Your task to perform on an android device: change notifications settings Image 0: 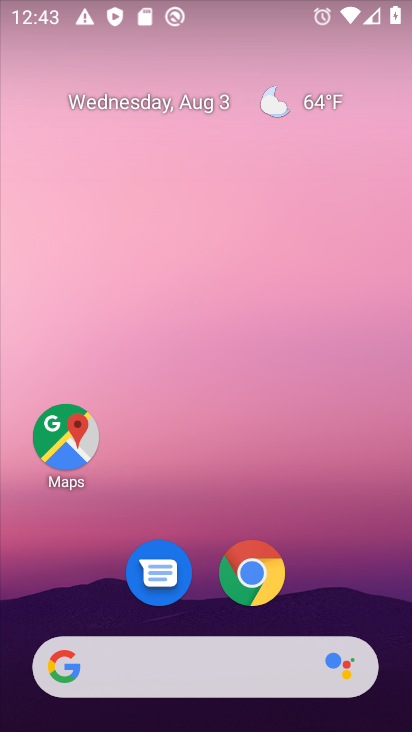
Step 0: drag from (194, 632) to (255, 176)
Your task to perform on an android device: change notifications settings Image 1: 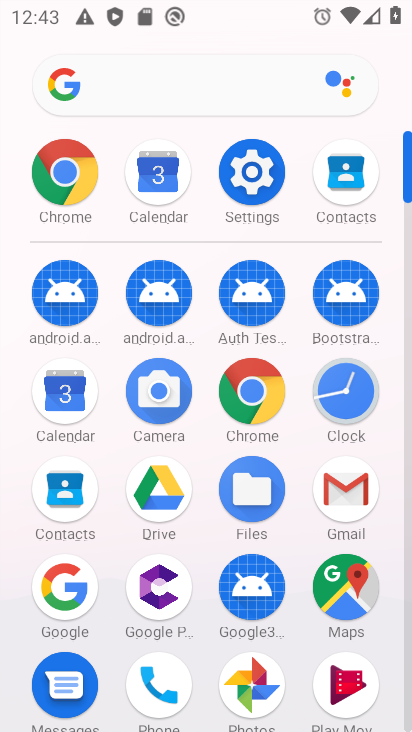
Step 1: click (249, 193)
Your task to perform on an android device: change notifications settings Image 2: 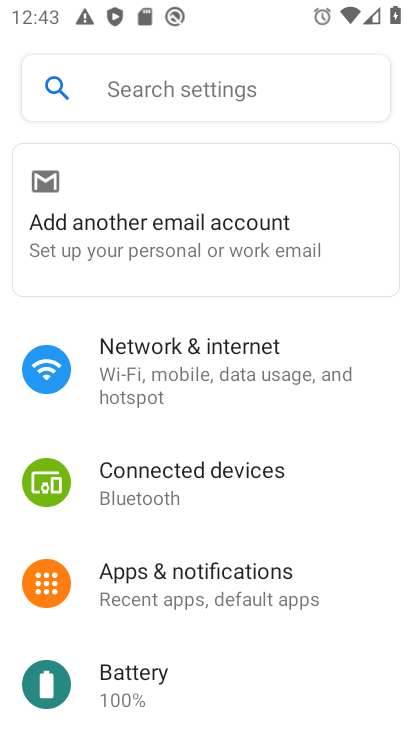
Step 2: click (142, 592)
Your task to perform on an android device: change notifications settings Image 3: 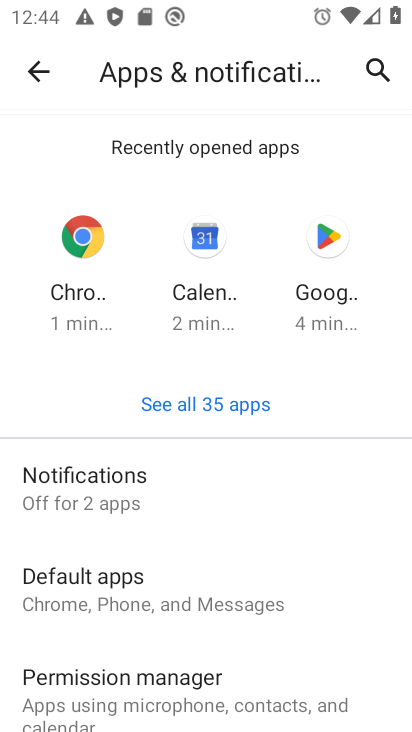
Step 3: click (137, 495)
Your task to perform on an android device: change notifications settings Image 4: 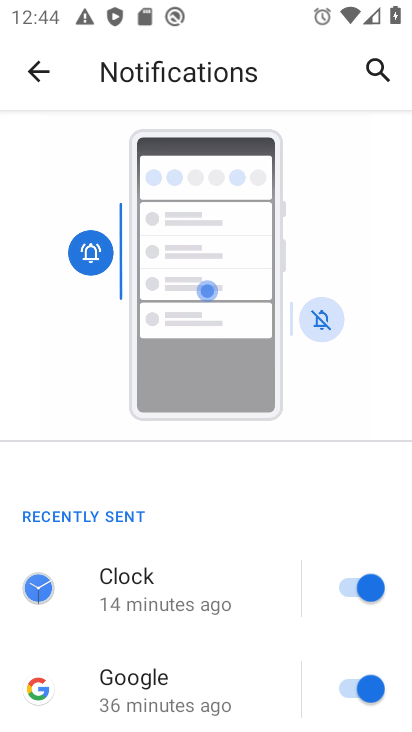
Step 4: click (357, 584)
Your task to perform on an android device: change notifications settings Image 5: 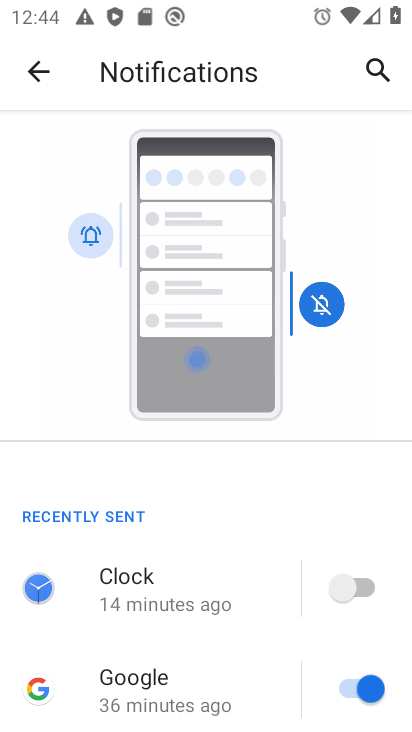
Step 5: task complete